Your task to perform on an android device: Open CNN.com Image 0: 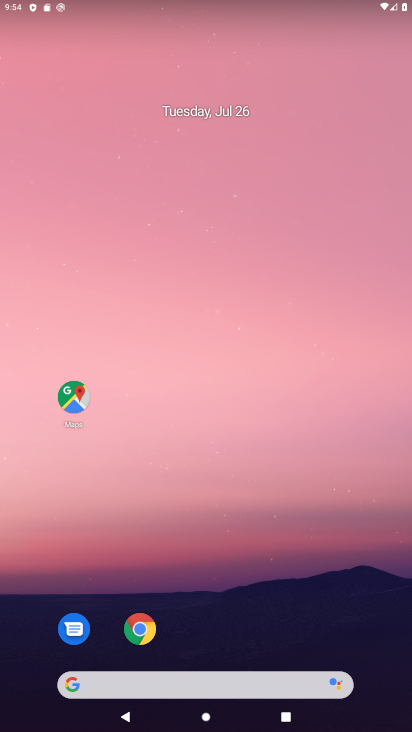
Step 0: click (175, 686)
Your task to perform on an android device: Open CNN.com Image 1: 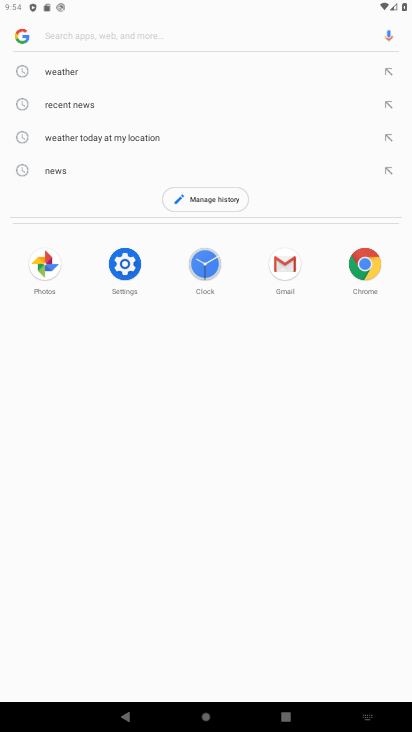
Step 1: type "cnn.com"
Your task to perform on an android device: Open CNN.com Image 2: 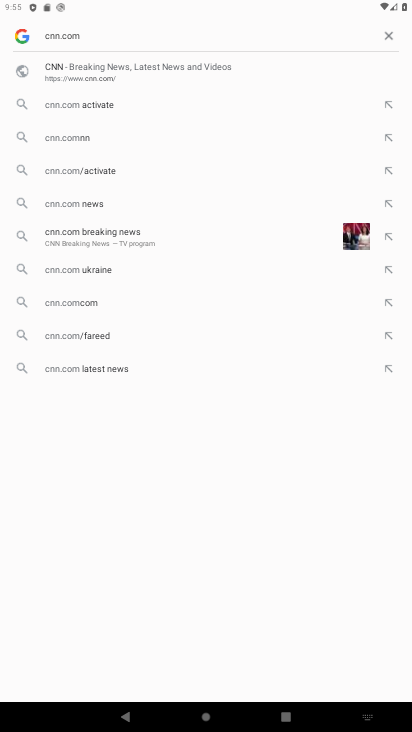
Step 2: click (194, 62)
Your task to perform on an android device: Open CNN.com Image 3: 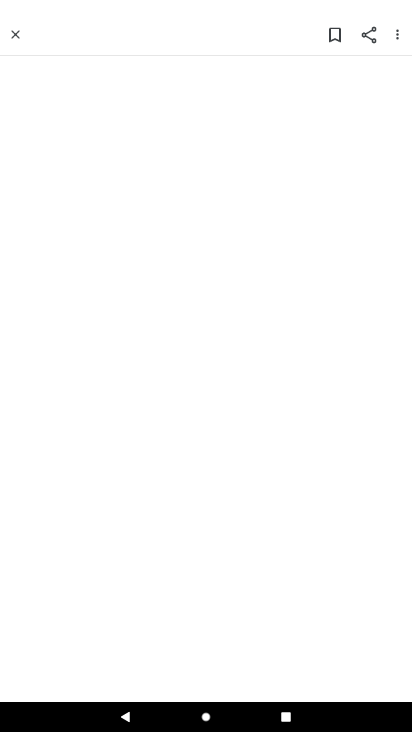
Step 3: task complete